Your task to perform on an android device: Clear all items from cart on bestbuy. Search for apple airpods on bestbuy, select the first entry, add it to the cart, then select checkout. Image 0: 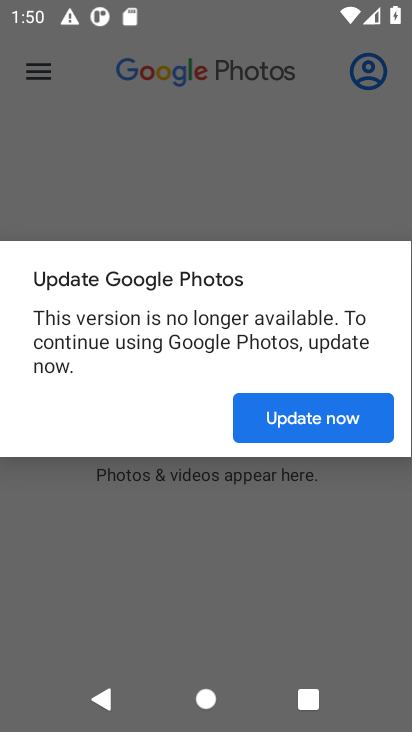
Step 0: press home button
Your task to perform on an android device: Clear all items from cart on bestbuy. Search for apple airpods on bestbuy, select the first entry, add it to the cart, then select checkout. Image 1: 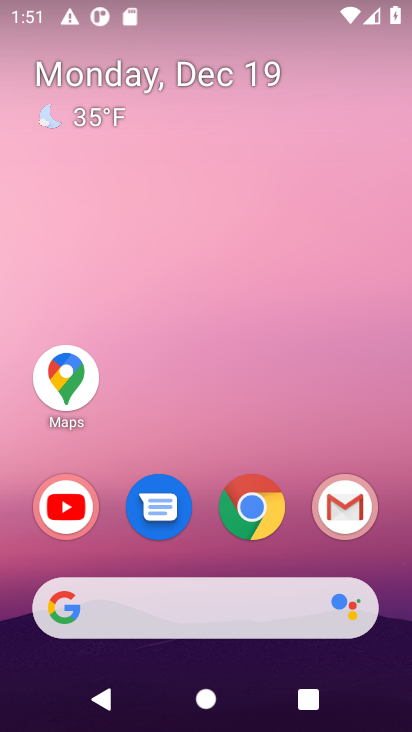
Step 1: click (259, 516)
Your task to perform on an android device: Clear all items from cart on bestbuy. Search for apple airpods on bestbuy, select the first entry, add it to the cart, then select checkout. Image 2: 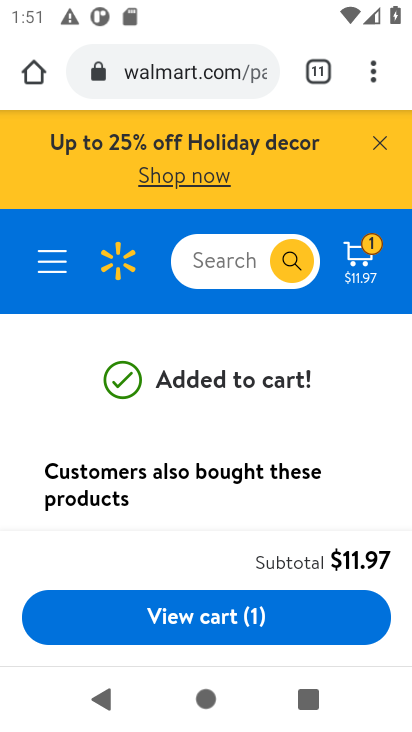
Step 2: click (180, 69)
Your task to perform on an android device: Clear all items from cart on bestbuy. Search for apple airpods on bestbuy, select the first entry, add it to the cart, then select checkout. Image 3: 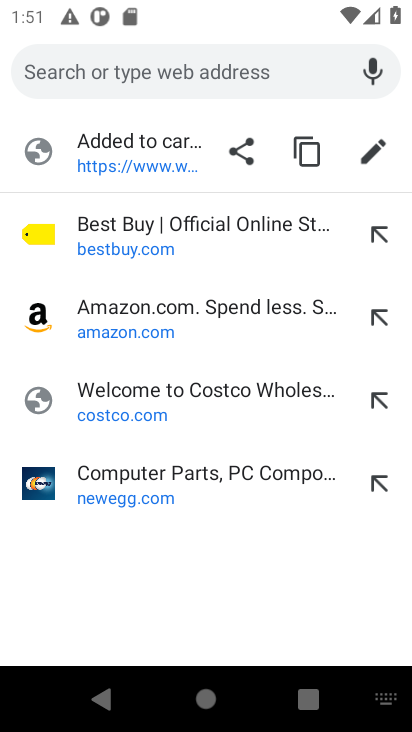
Step 3: click (145, 247)
Your task to perform on an android device: Clear all items from cart on bestbuy. Search for apple airpods on bestbuy, select the first entry, add it to the cart, then select checkout. Image 4: 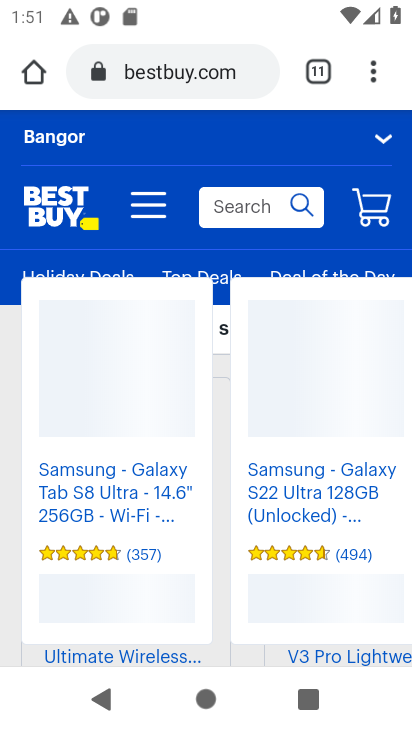
Step 4: click (374, 215)
Your task to perform on an android device: Clear all items from cart on bestbuy. Search for apple airpods on bestbuy, select the first entry, add it to the cart, then select checkout. Image 5: 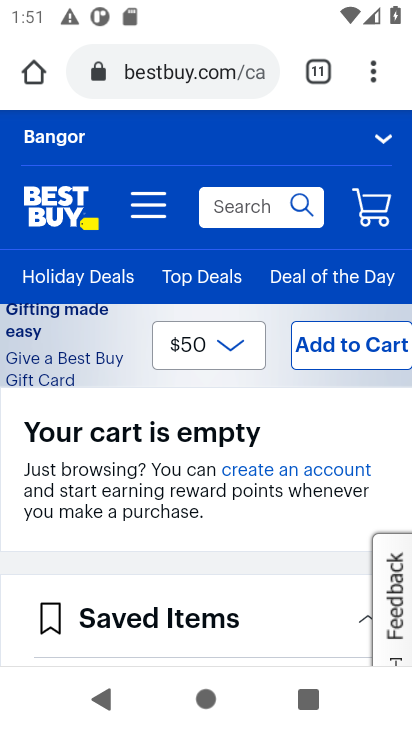
Step 5: click (224, 216)
Your task to perform on an android device: Clear all items from cart on bestbuy. Search for apple airpods on bestbuy, select the first entry, add it to the cart, then select checkout. Image 6: 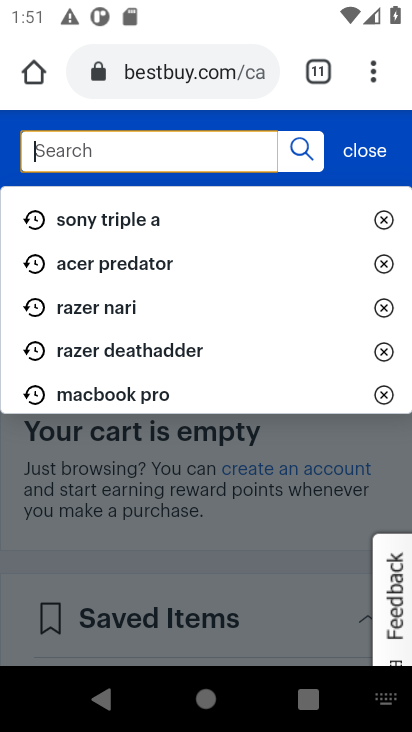
Step 6: type "apple airpods"
Your task to perform on an android device: Clear all items from cart on bestbuy. Search for apple airpods on bestbuy, select the first entry, add it to the cart, then select checkout. Image 7: 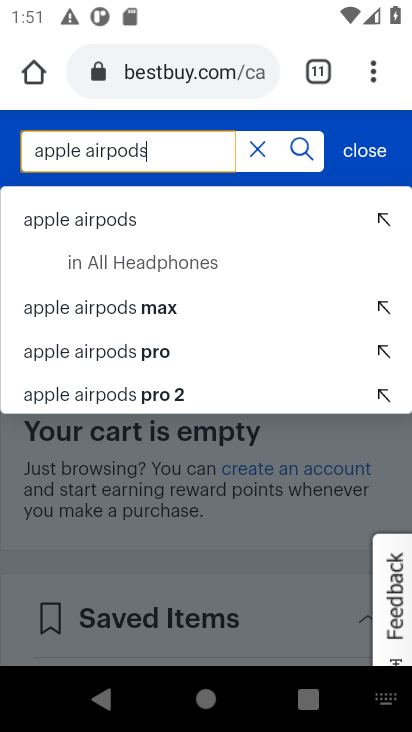
Step 7: click (110, 228)
Your task to perform on an android device: Clear all items from cart on bestbuy. Search for apple airpods on bestbuy, select the first entry, add it to the cart, then select checkout. Image 8: 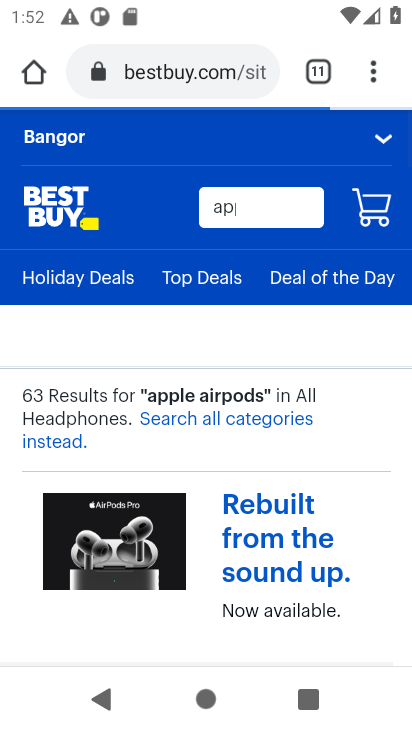
Step 8: drag from (96, 483) to (125, 183)
Your task to perform on an android device: Clear all items from cart on bestbuy. Search for apple airpods on bestbuy, select the first entry, add it to the cart, then select checkout. Image 9: 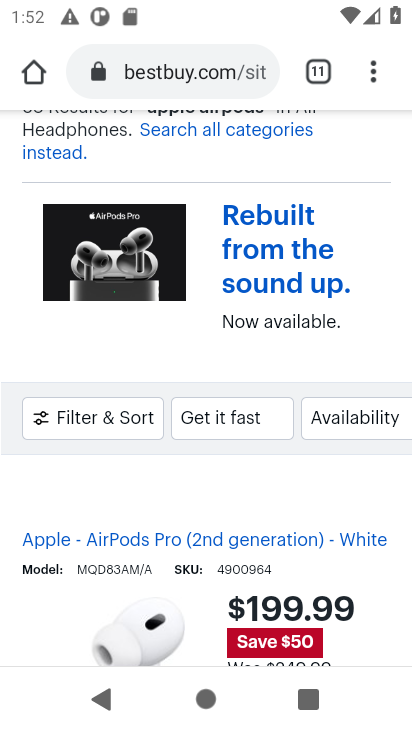
Step 9: drag from (134, 489) to (142, 166)
Your task to perform on an android device: Clear all items from cart on bestbuy. Search for apple airpods on bestbuy, select the first entry, add it to the cart, then select checkout. Image 10: 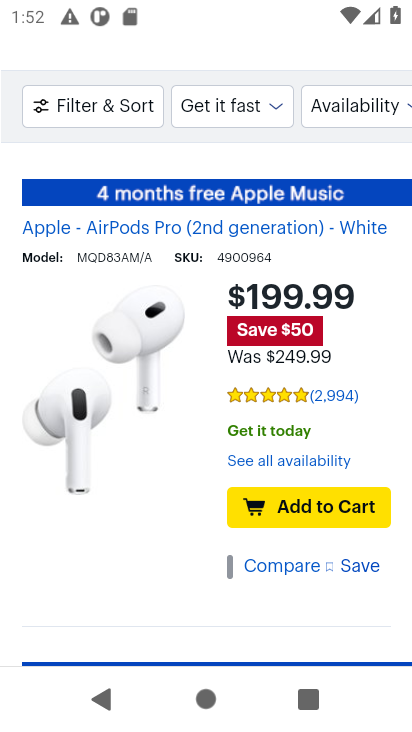
Step 10: click (303, 521)
Your task to perform on an android device: Clear all items from cart on bestbuy. Search for apple airpods on bestbuy, select the first entry, add it to the cart, then select checkout. Image 11: 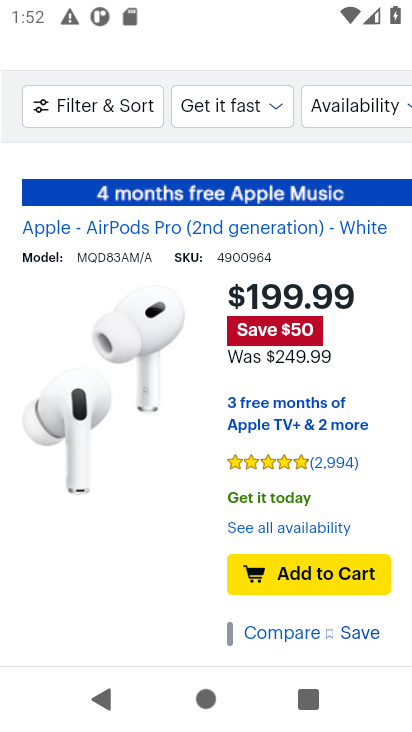
Step 11: click (306, 568)
Your task to perform on an android device: Clear all items from cart on bestbuy. Search for apple airpods on bestbuy, select the first entry, add it to the cart, then select checkout. Image 12: 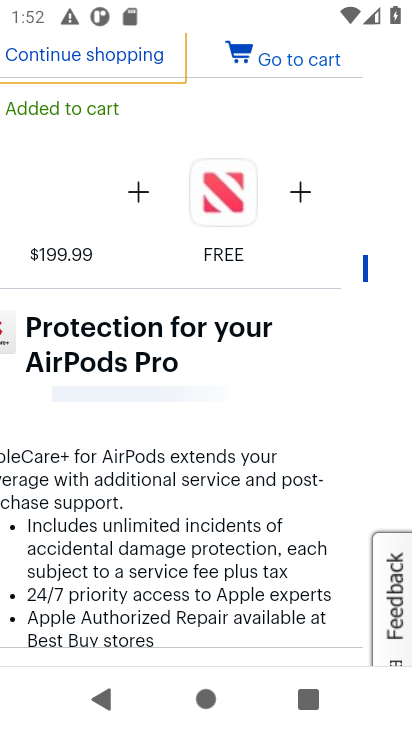
Step 12: click (313, 60)
Your task to perform on an android device: Clear all items from cart on bestbuy. Search for apple airpods on bestbuy, select the first entry, add it to the cart, then select checkout. Image 13: 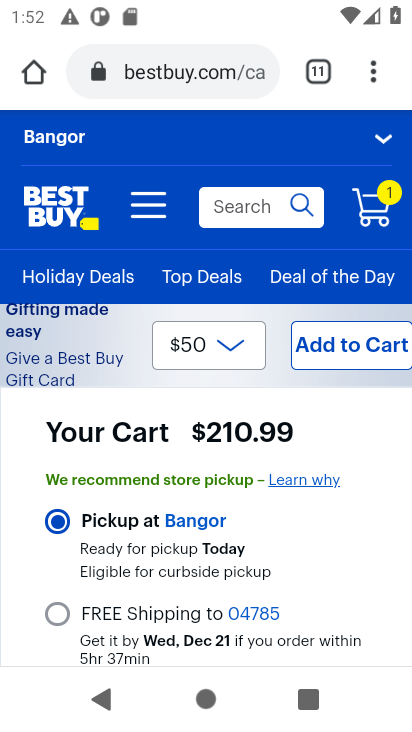
Step 13: drag from (236, 531) to (246, 253)
Your task to perform on an android device: Clear all items from cart on bestbuy. Search for apple airpods on bestbuy, select the first entry, add it to the cart, then select checkout. Image 14: 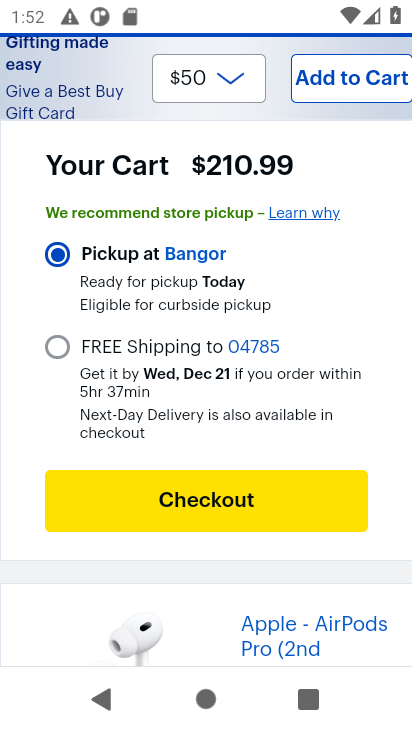
Step 14: click (189, 503)
Your task to perform on an android device: Clear all items from cart on bestbuy. Search for apple airpods on bestbuy, select the first entry, add it to the cart, then select checkout. Image 15: 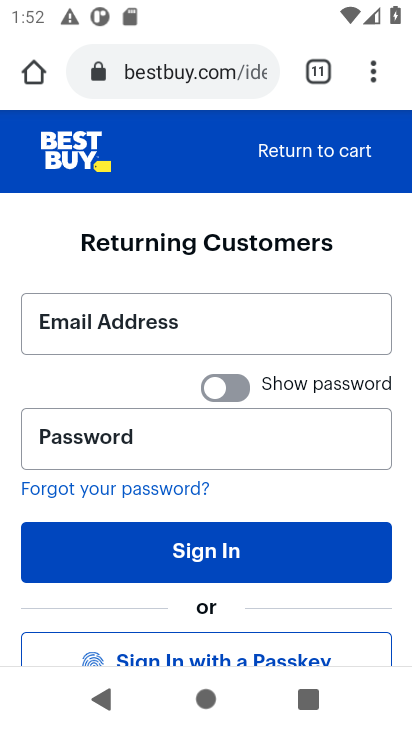
Step 15: task complete